Your task to perform on an android device: choose inbox layout in the gmail app Image 0: 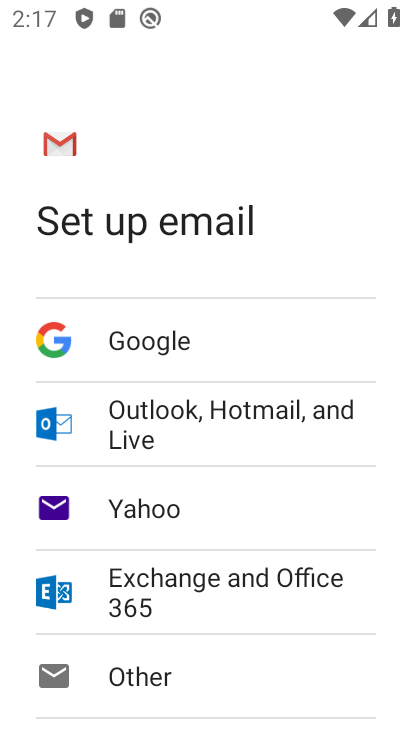
Step 0: press home button
Your task to perform on an android device: choose inbox layout in the gmail app Image 1: 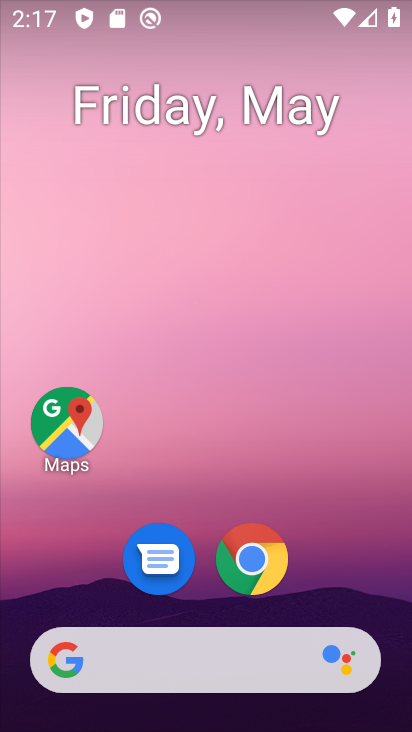
Step 1: drag from (362, 378) to (258, 33)
Your task to perform on an android device: choose inbox layout in the gmail app Image 2: 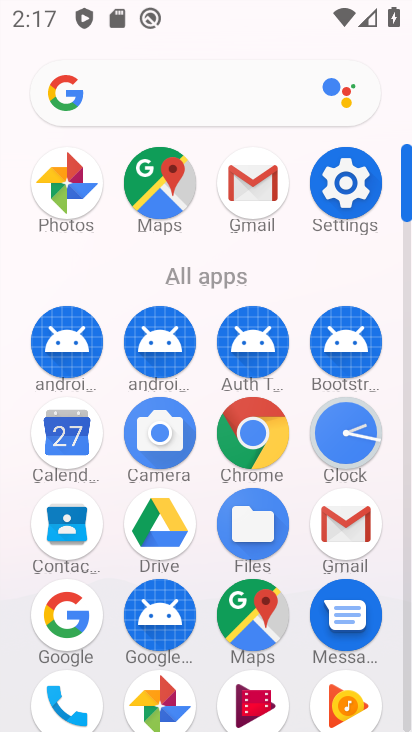
Step 2: click (257, 190)
Your task to perform on an android device: choose inbox layout in the gmail app Image 3: 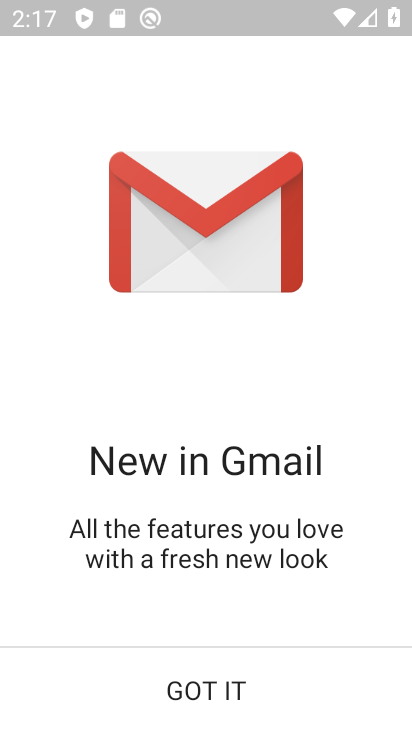
Step 3: click (225, 681)
Your task to perform on an android device: choose inbox layout in the gmail app Image 4: 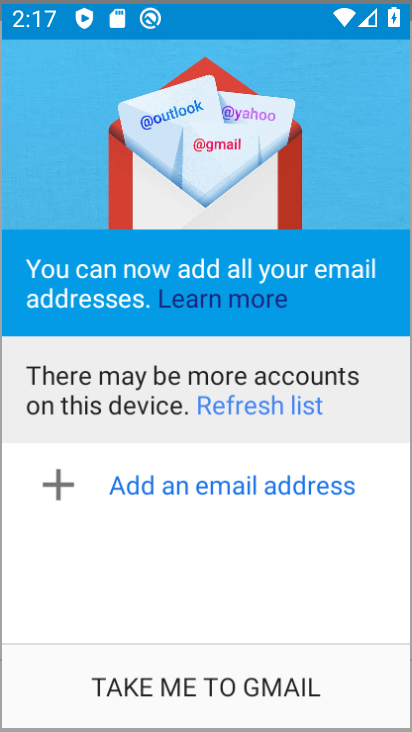
Step 4: click (225, 669)
Your task to perform on an android device: choose inbox layout in the gmail app Image 5: 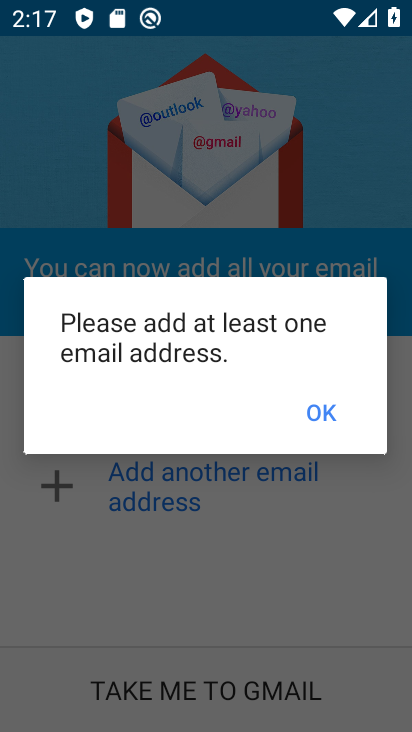
Step 5: click (327, 398)
Your task to perform on an android device: choose inbox layout in the gmail app Image 6: 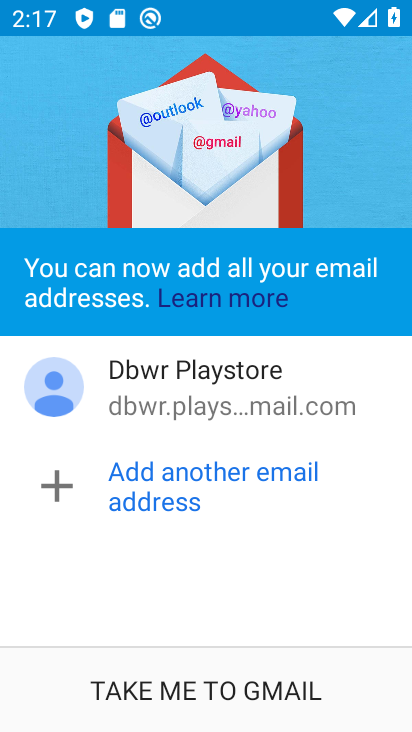
Step 6: click (261, 698)
Your task to perform on an android device: choose inbox layout in the gmail app Image 7: 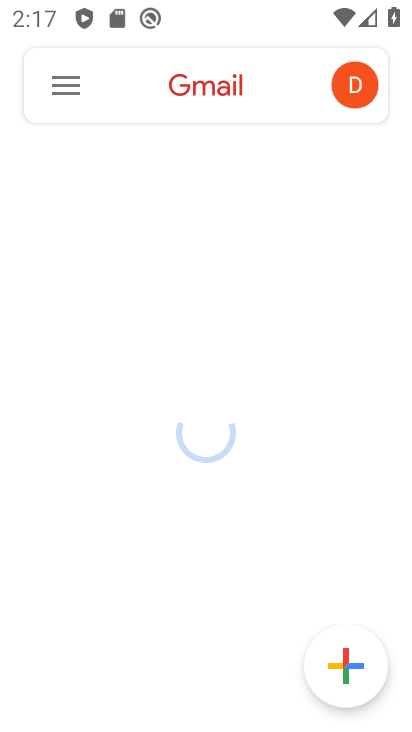
Step 7: click (64, 90)
Your task to perform on an android device: choose inbox layout in the gmail app Image 8: 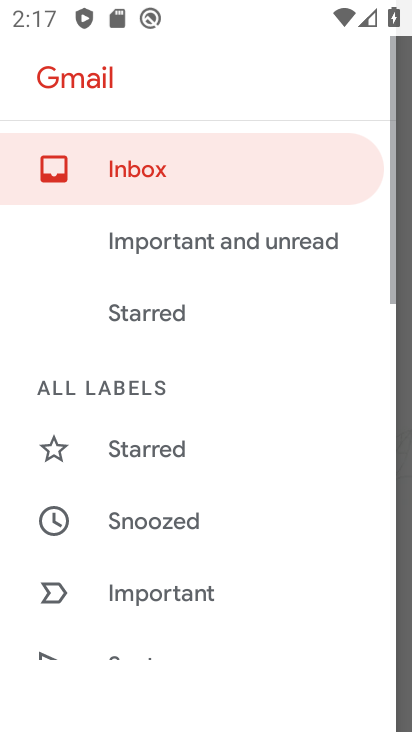
Step 8: drag from (224, 630) to (183, 5)
Your task to perform on an android device: choose inbox layout in the gmail app Image 9: 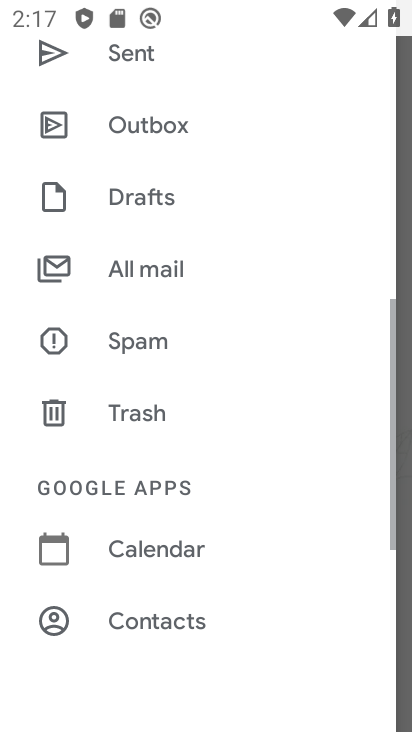
Step 9: drag from (243, 565) to (186, 0)
Your task to perform on an android device: choose inbox layout in the gmail app Image 10: 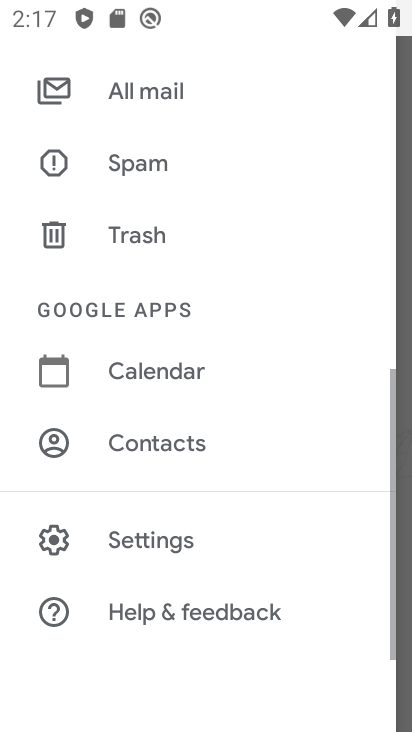
Step 10: click (183, 528)
Your task to perform on an android device: choose inbox layout in the gmail app Image 11: 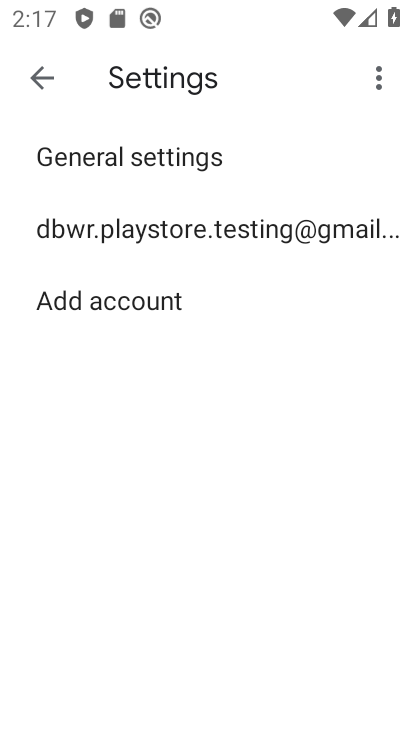
Step 11: click (116, 219)
Your task to perform on an android device: choose inbox layout in the gmail app Image 12: 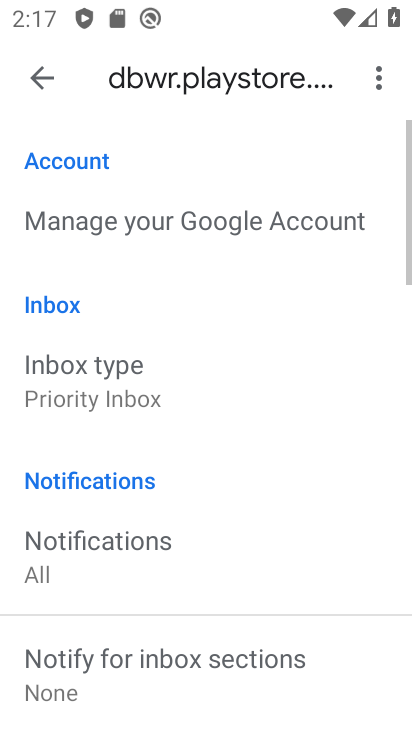
Step 12: click (121, 385)
Your task to perform on an android device: choose inbox layout in the gmail app Image 13: 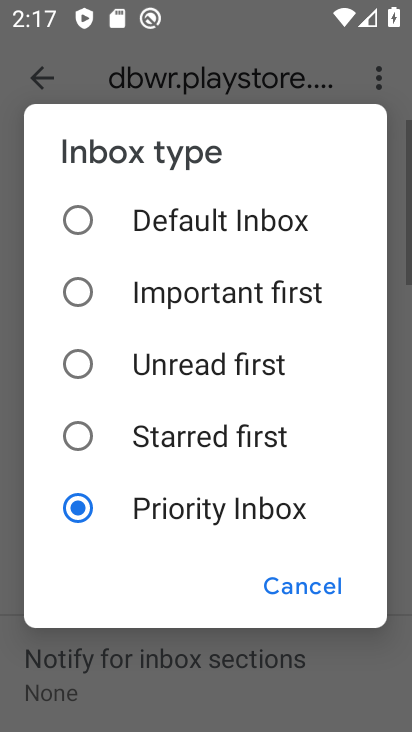
Step 13: click (177, 287)
Your task to perform on an android device: choose inbox layout in the gmail app Image 14: 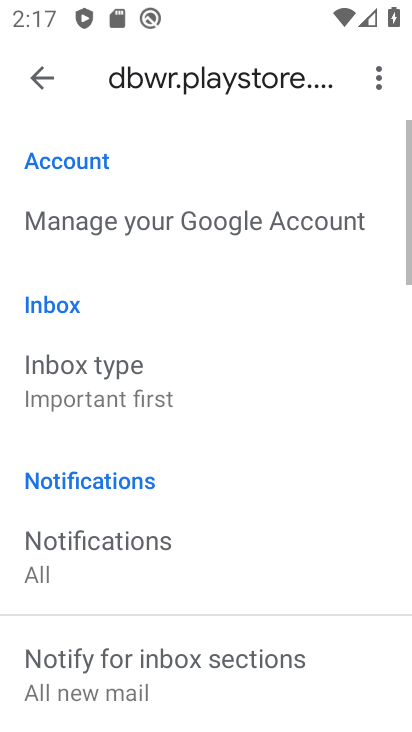
Step 14: task complete